Your task to perform on an android device: install app "Microsoft Excel" Image 0: 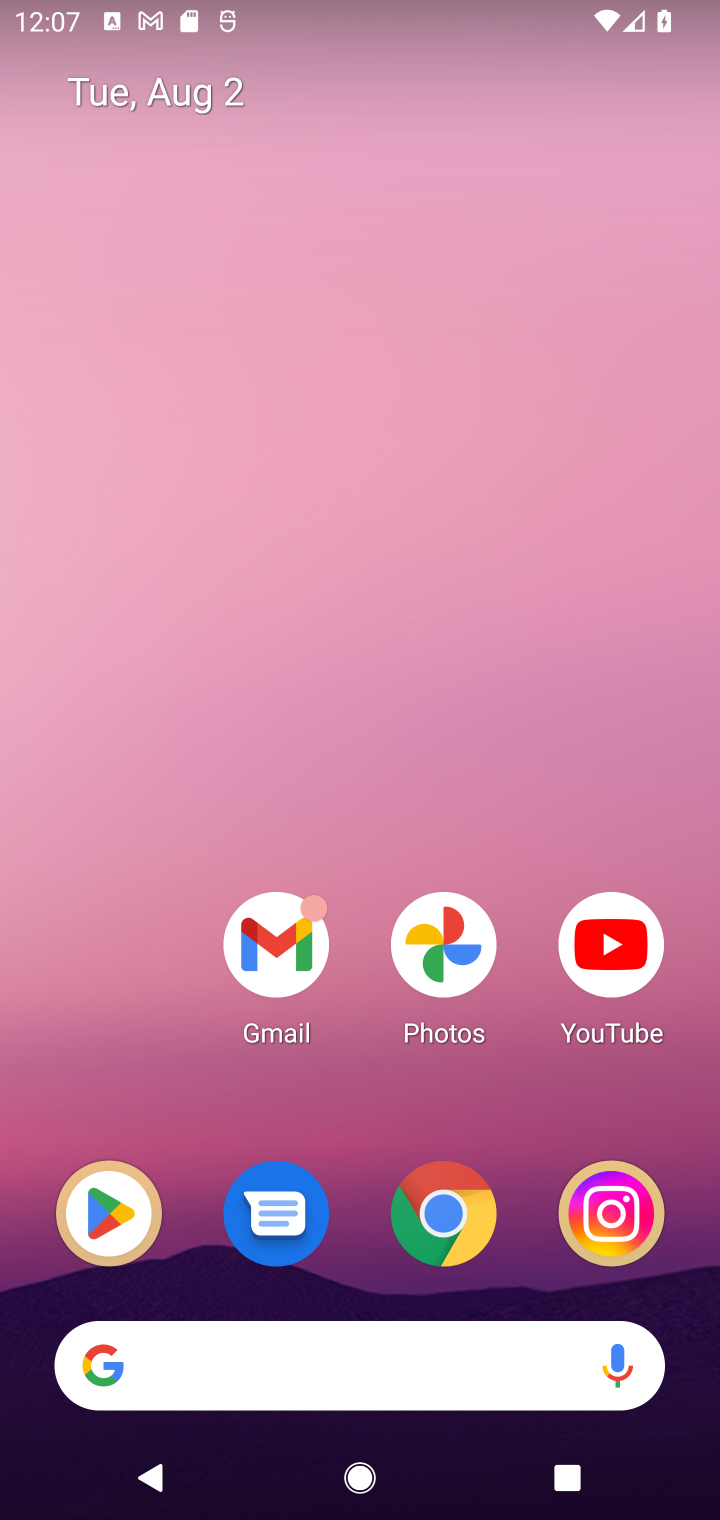
Step 0: click (112, 1207)
Your task to perform on an android device: install app "Microsoft Excel" Image 1: 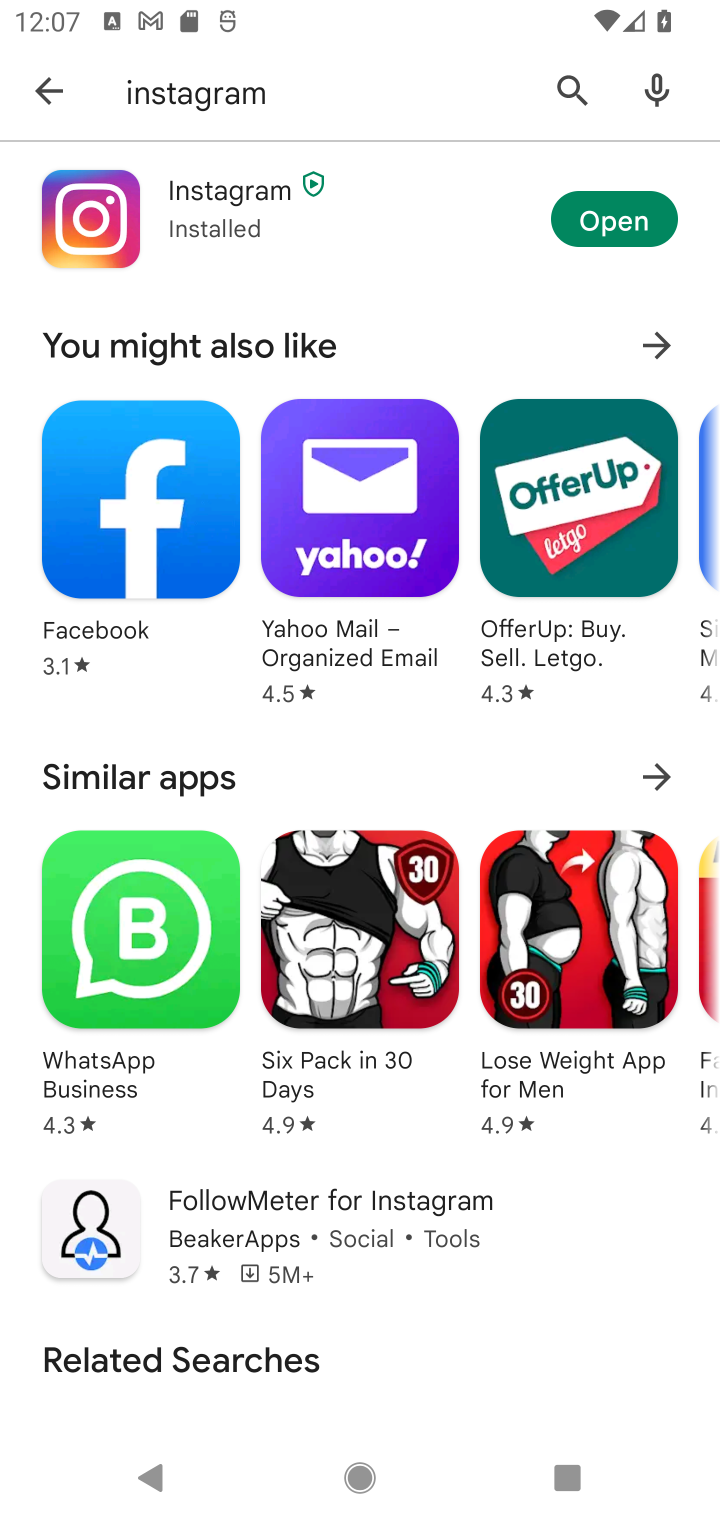
Step 1: click (44, 82)
Your task to perform on an android device: install app "Microsoft Excel" Image 2: 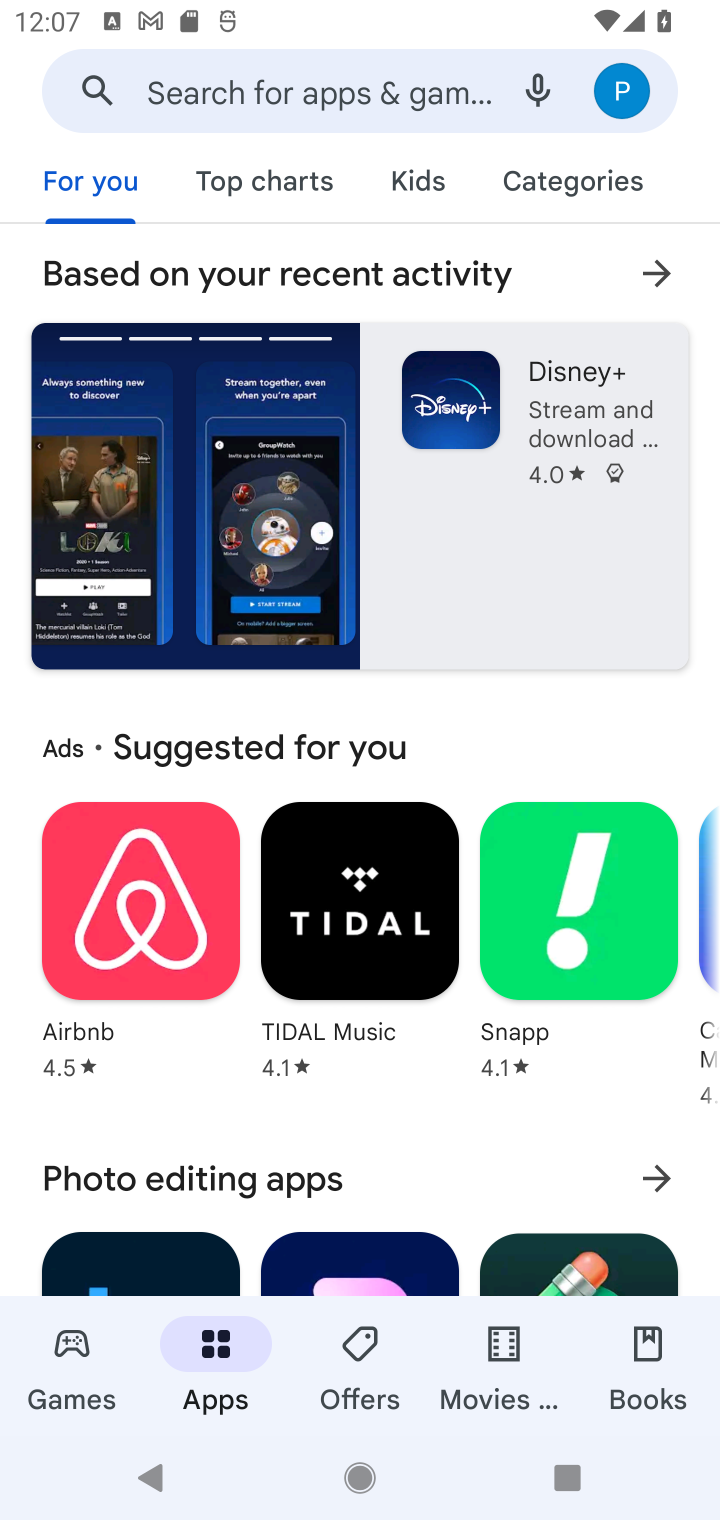
Step 2: click (279, 95)
Your task to perform on an android device: install app "Microsoft Excel" Image 3: 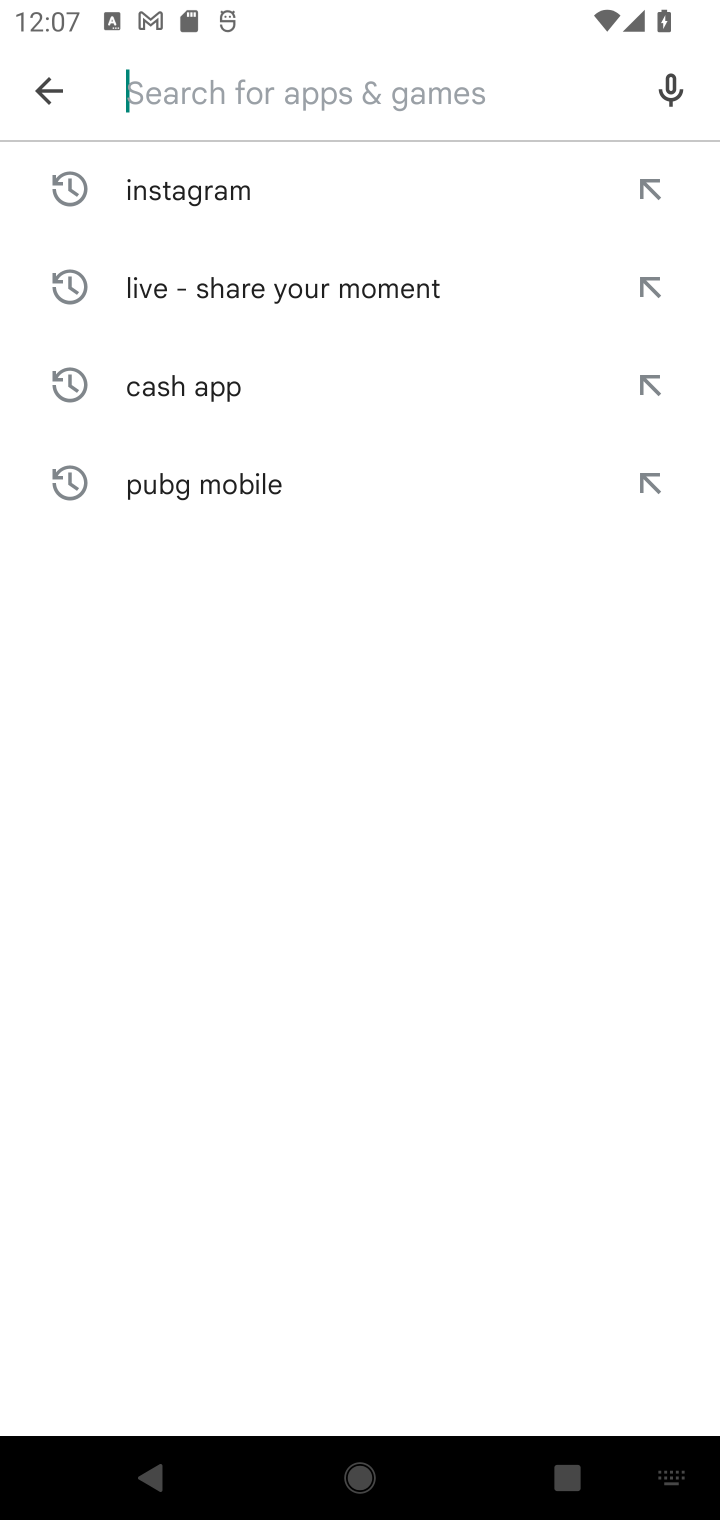
Step 3: type "Microsoft Excel"
Your task to perform on an android device: install app "Microsoft Excel" Image 4: 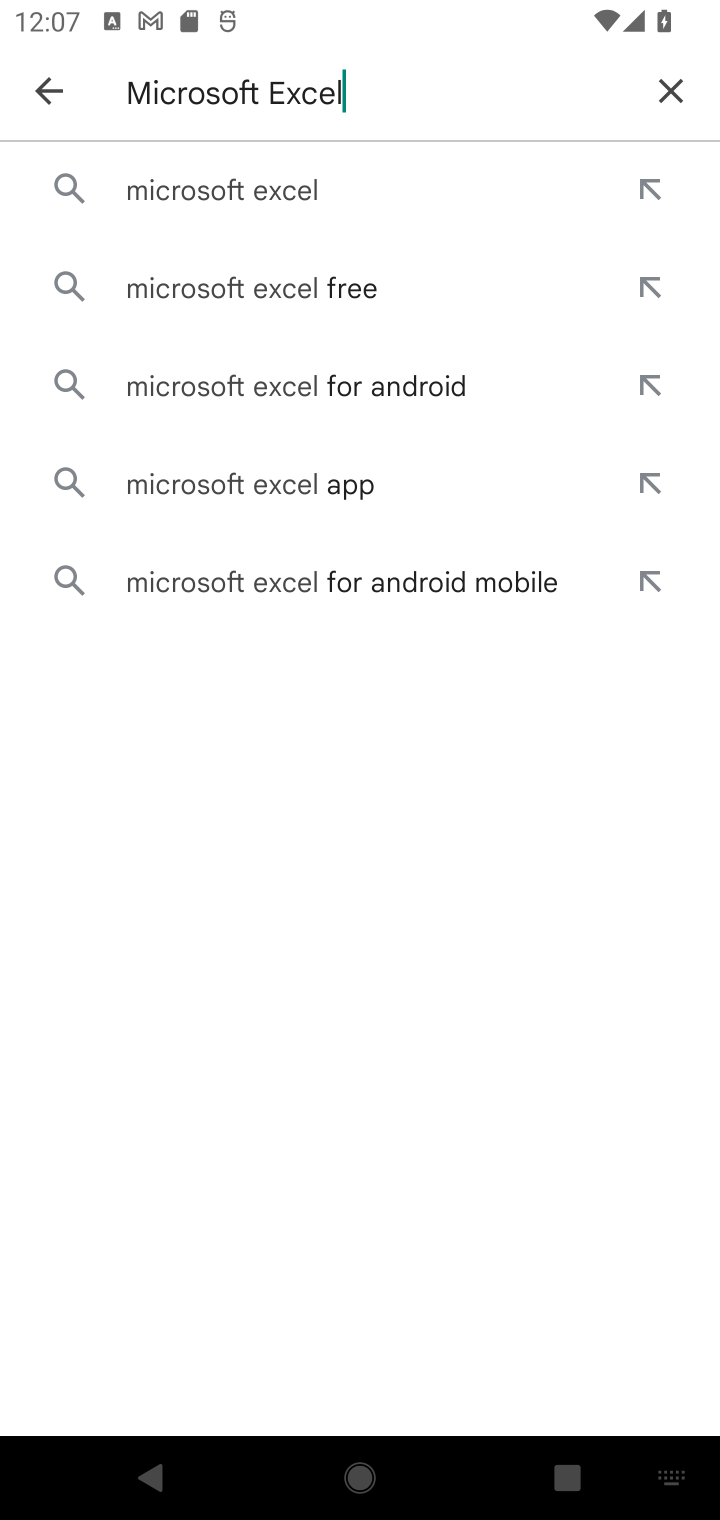
Step 4: click (162, 189)
Your task to perform on an android device: install app "Microsoft Excel" Image 5: 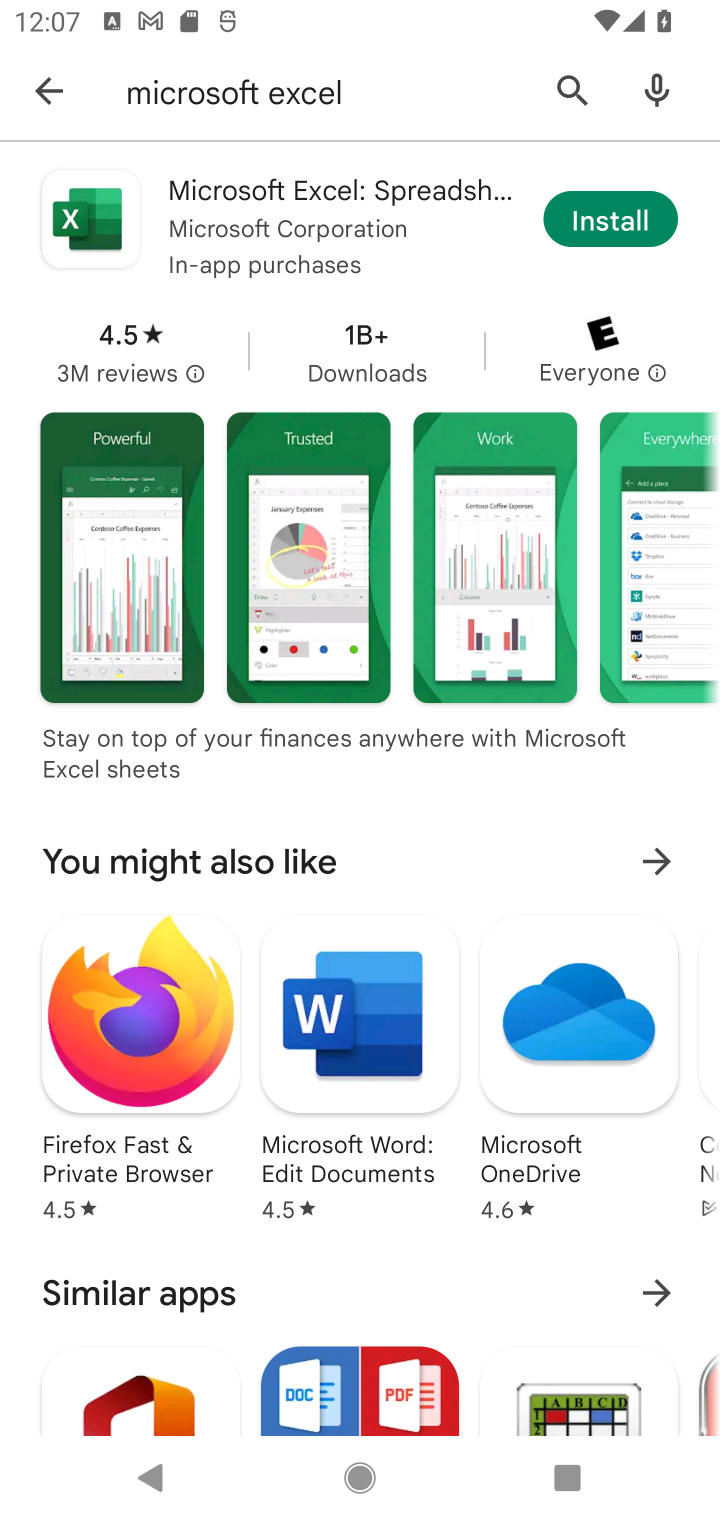
Step 5: click (594, 210)
Your task to perform on an android device: install app "Microsoft Excel" Image 6: 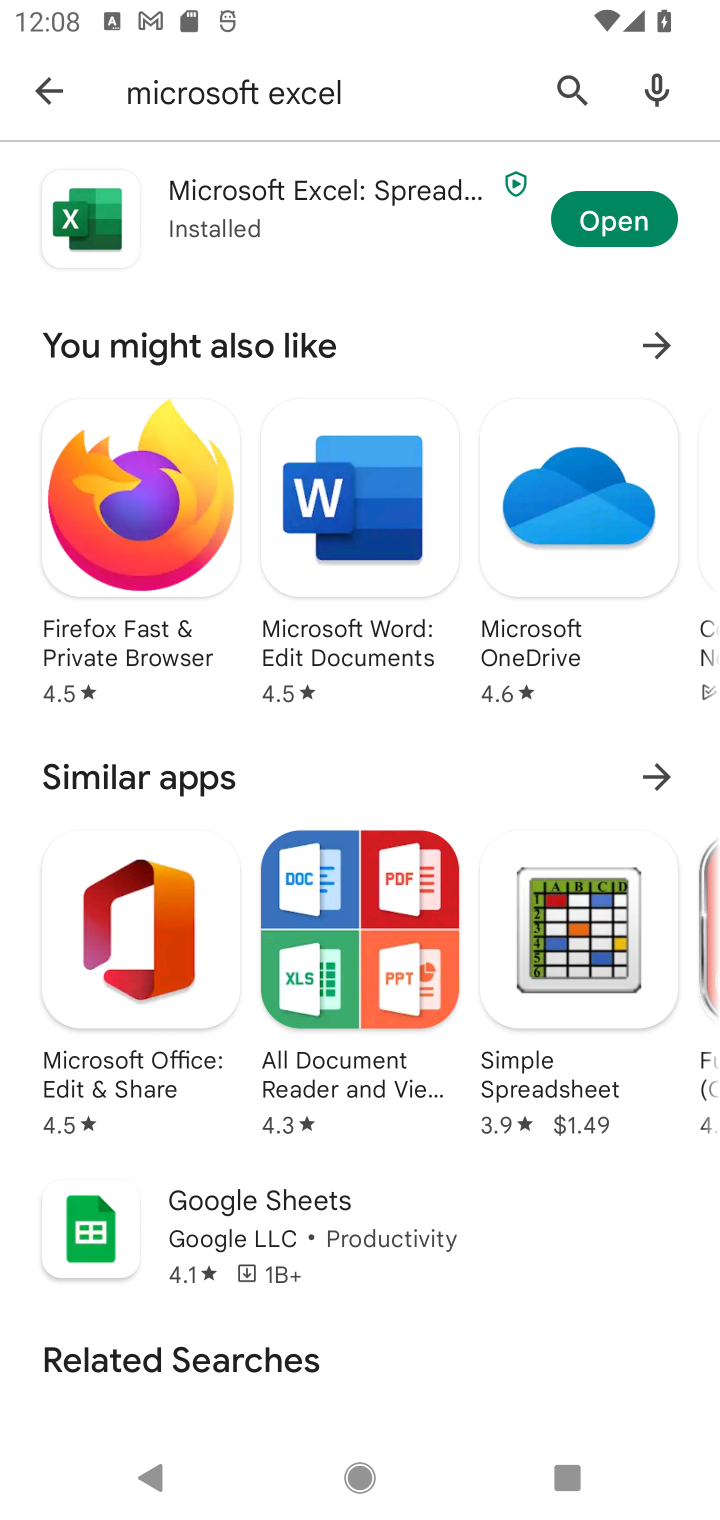
Step 6: click (606, 242)
Your task to perform on an android device: install app "Microsoft Excel" Image 7: 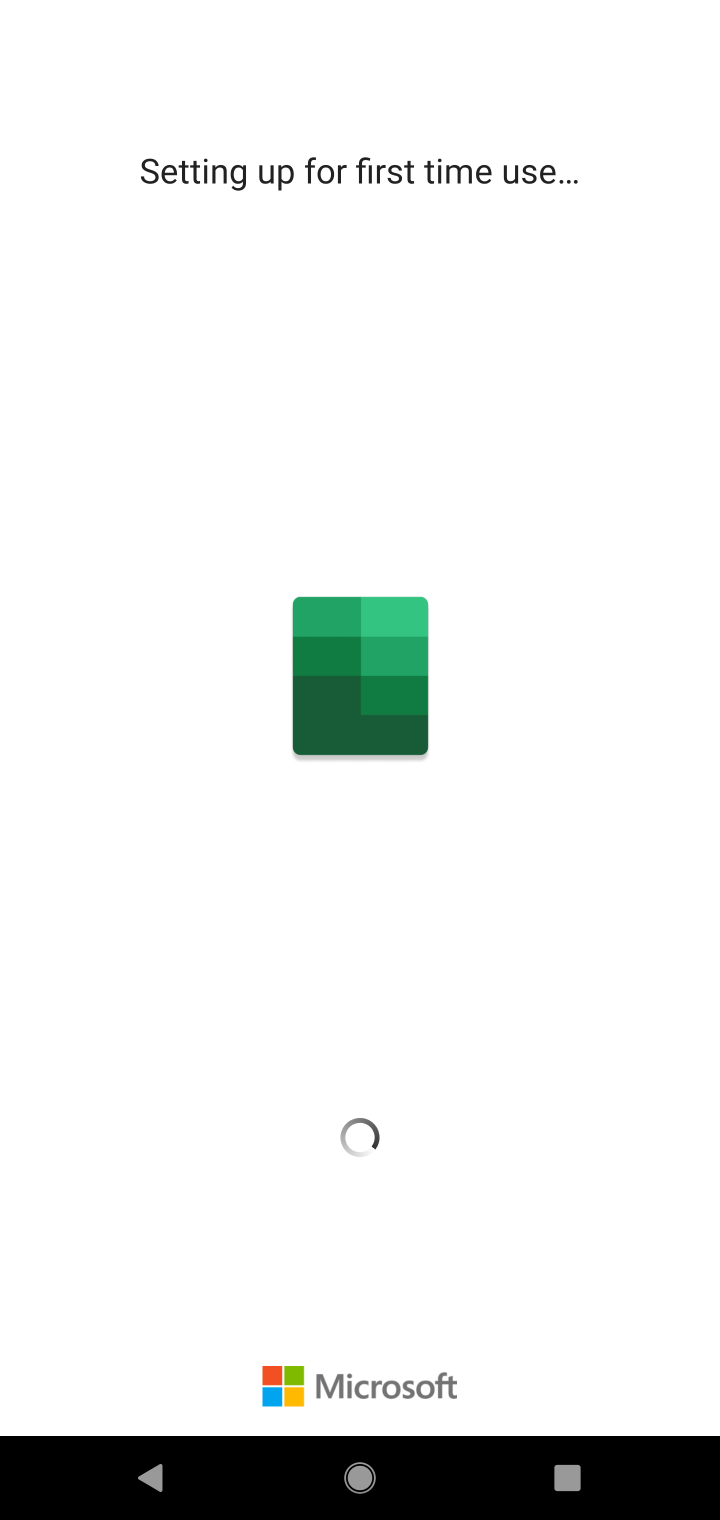
Step 7: task complete